Your task to perform on an android device: change your default location settings in chrome Image 0: 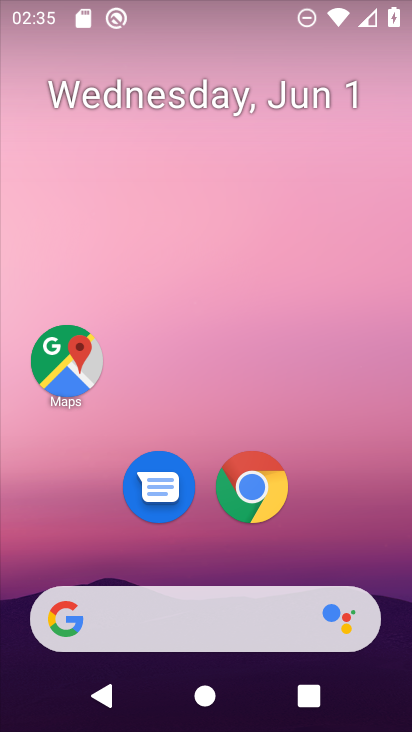
Step 0: drag from (285, 512) to (277, 236)
Your task to perform on an android device: change your default location settings in chrome Image 1: 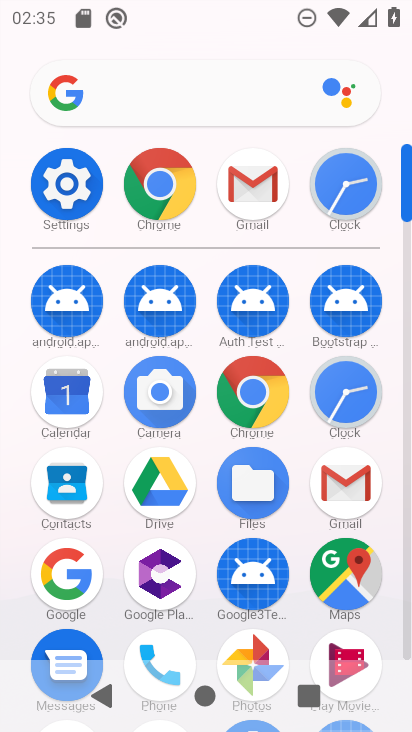
Step 1: click (238, 395)
Your task to perform on an android device: change your default location settings in chrome Image 2: 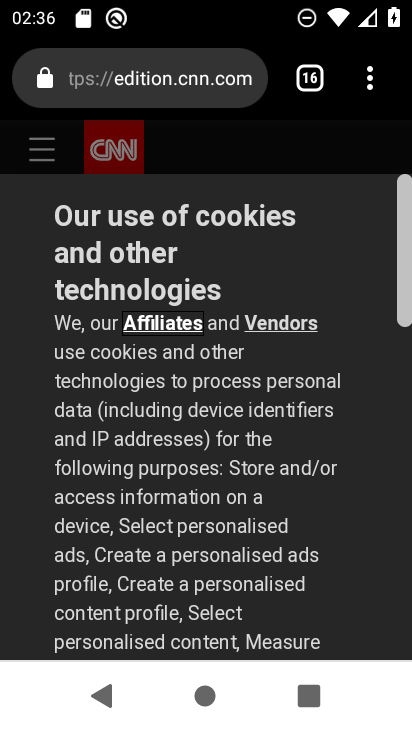
Step 2: click (366, 77)
Your task to perform on an android device: change your default location settings in chrome Image 3: 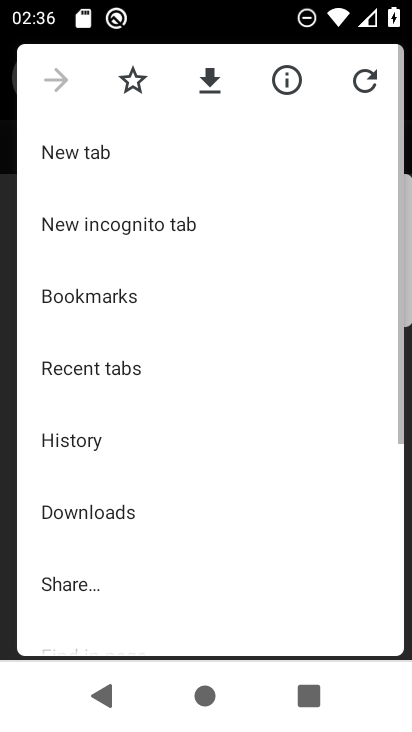
Step 3: drag from (143, 599) to (187, 225)
Your task to perform on an android device: change your default location settings in chrome Image 4: 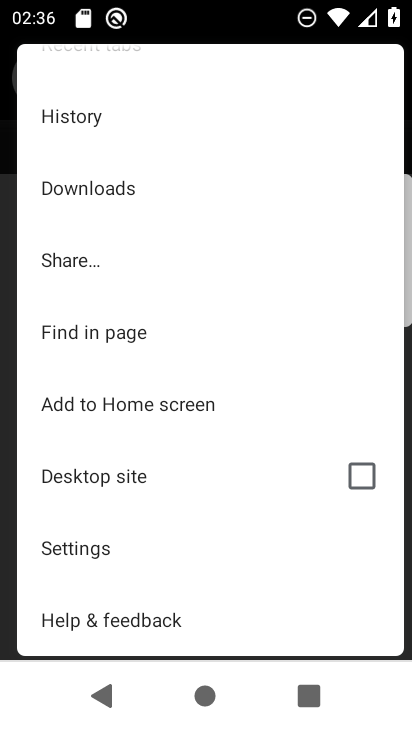
Step 4: click (131, 563)
Your task to perform on an android device: change your default location settings in chrome Image 5: 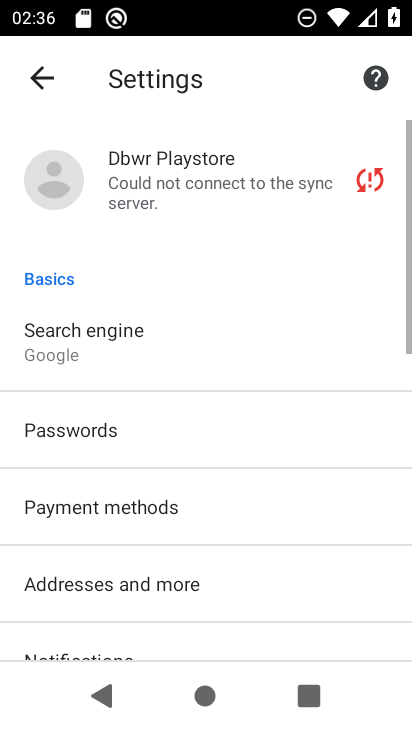
Step 5: click (102, 352)
Your task to perform on an android device: change your default location settings in chrome Image 6: 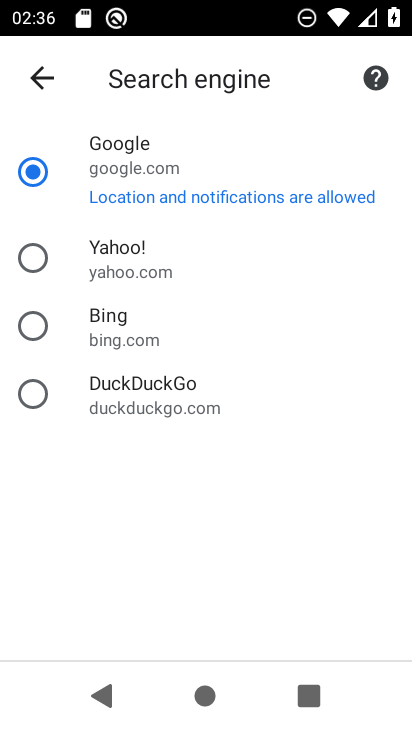
Step 6: click (36, 59)
Your task to perform on an android device: change your default location settings in chrome Image 7: 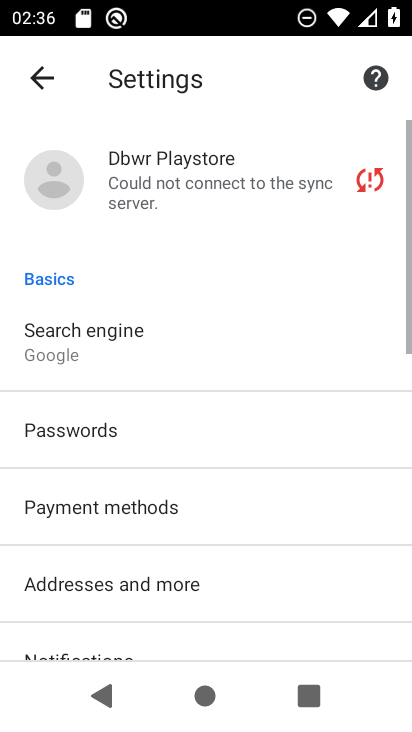
Step 7: drag from (135, 610) to (156, 380)
Your task to perform on an android device: change your default location settings in chrome Image 8: 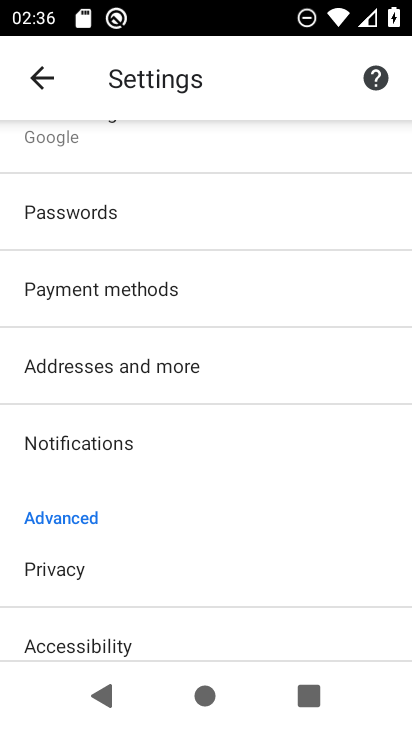
Step 8: drag from (119, 590) to (181, 279)
Your task to perform on an android device: change your default location settings in chrome Image 9: 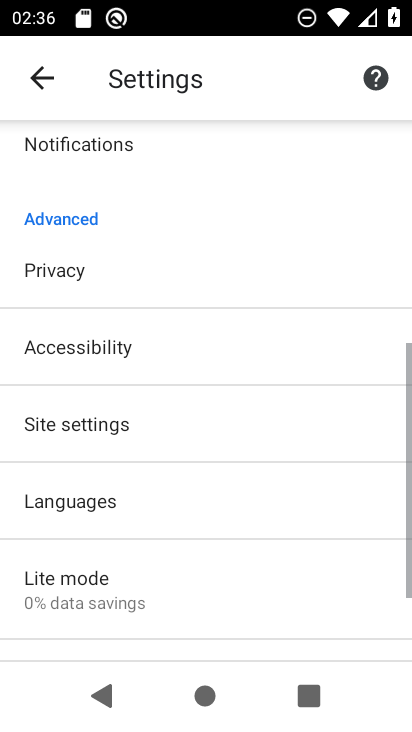
Step 9: click (109, 476)
Your task to perform on an android device: change your default location settings in chrome Image 10: 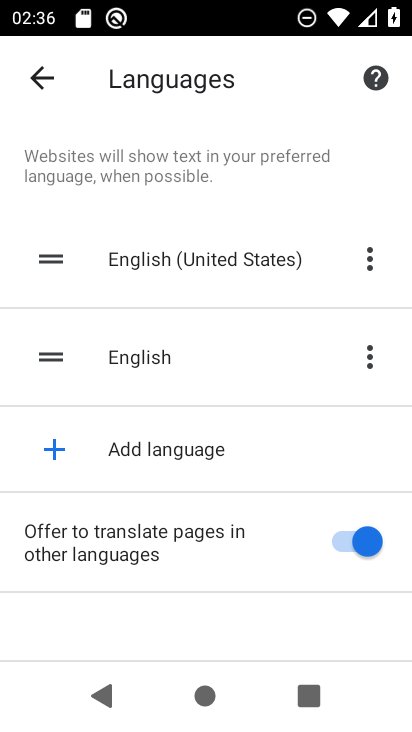
Step 10: click (34, 75)
Your task to perform on an android device: change your default location settings in chrome Image 11: 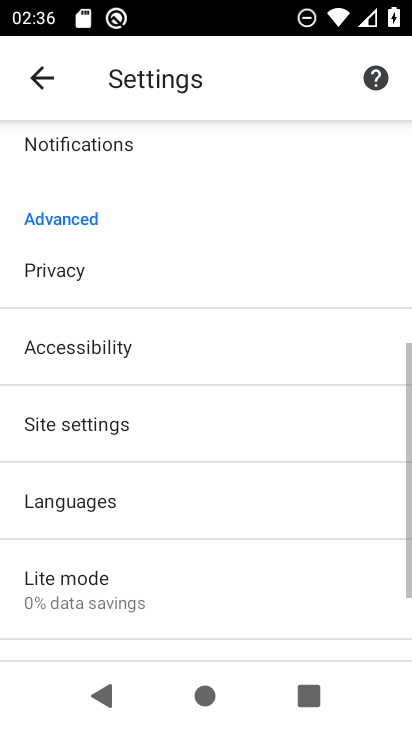
Step 11: drag from (121, 569) to (147, 338)
Your task to perform on an android device: change your default location settings in chrome Image 12: 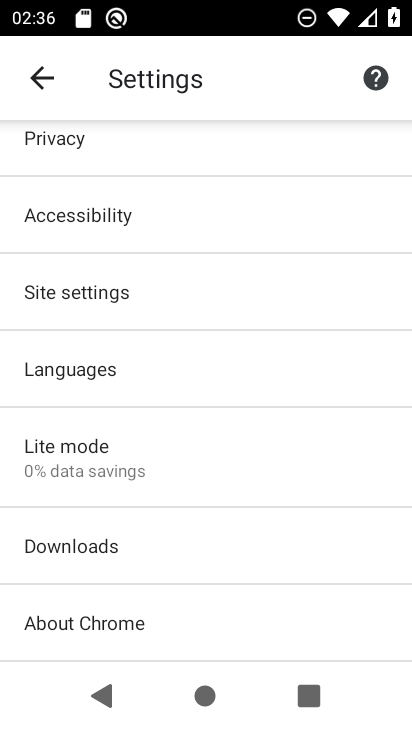
Step 12: click (136, 290)
Your task to perform on an android device: change your default location settings in chrome Image 13: 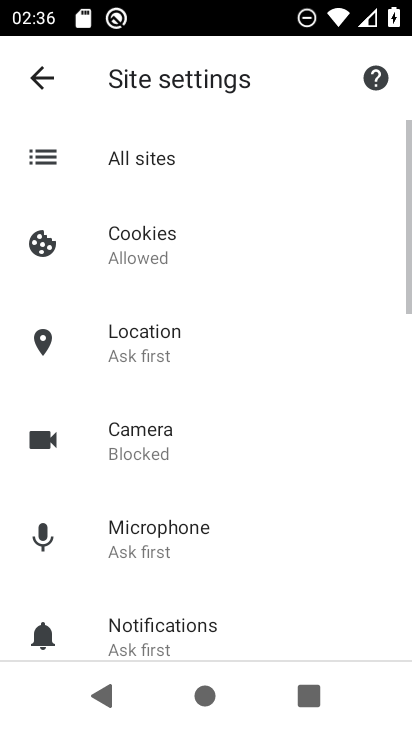
Step 13: click (143, 372)
Your task to perform on an android device: change your default location settings in chrome Image 14: 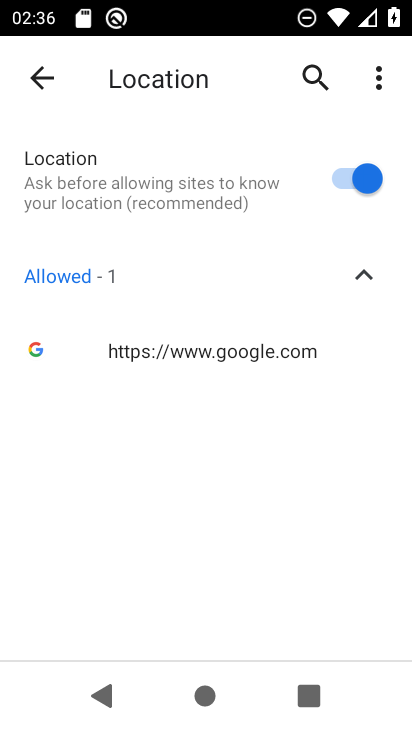
Step 14: click (322, 174)
Your task to perform on an android device: change your default location settings in chrome Image 15: 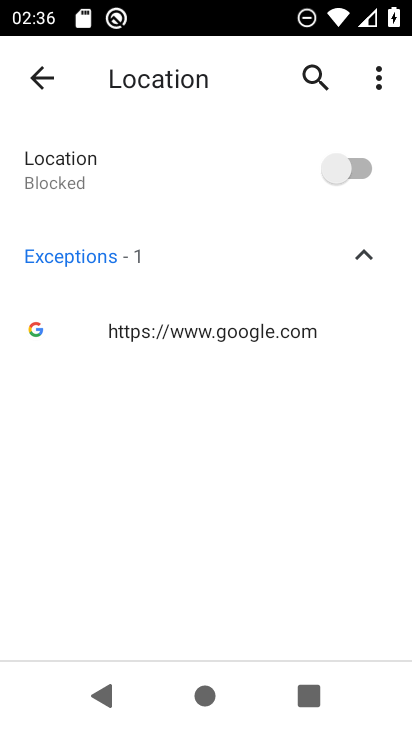
Step 15: task complete